Your task to perform on an android device: install app "Etsy: Buy & Sell Unique Items" Image 0: 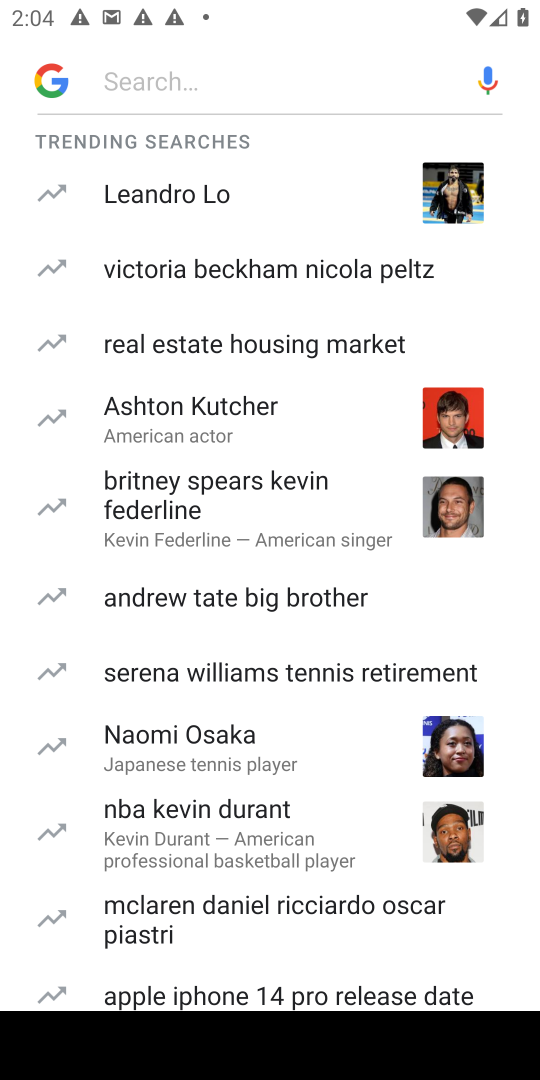
Step 0: press home button
Your task to perform on an android device: install app "Etsy: Buy & Sell Unique Items" Image 1: 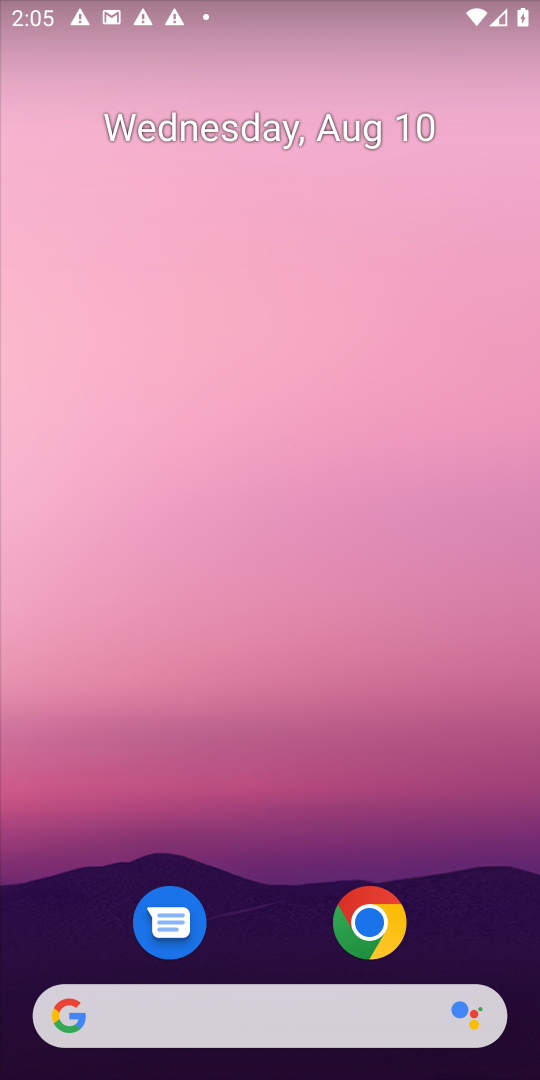
Step 1: drag from (270, 917) to (253, 495)
Your task to perform on an android device: install app "Etsy: Buy & Sell Unique Items" Image 2: 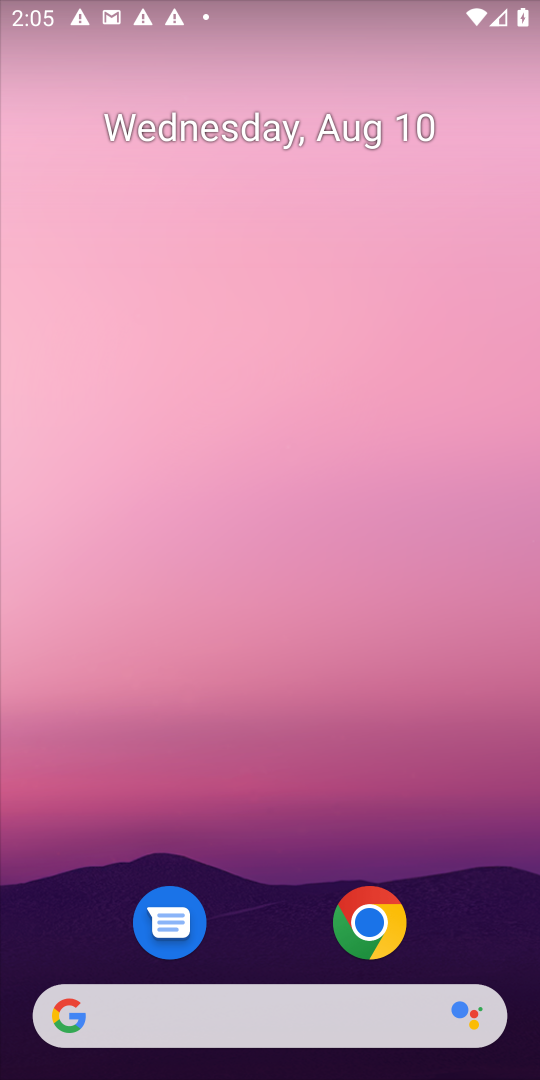
Step 2: drag from (250, 653) to (396, 159)
Your task to perform on an android device: install app "Etsy: Buy & Sell Unique Items" Image 3: 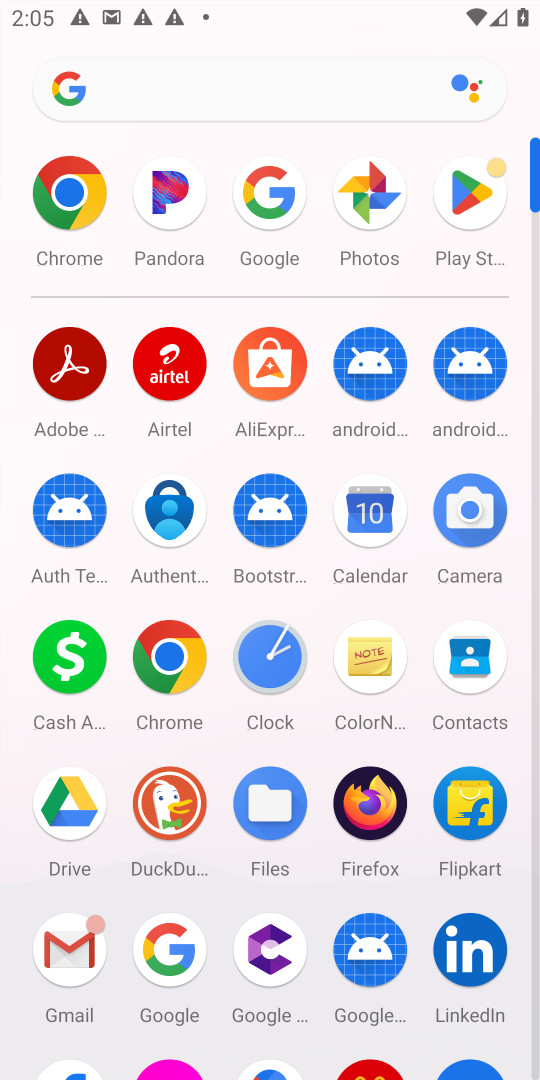
Step 3: click (454, 210)
Your task to perform on an android device: install app "Etsy: Buy & Sell Unique Items" Image 4: 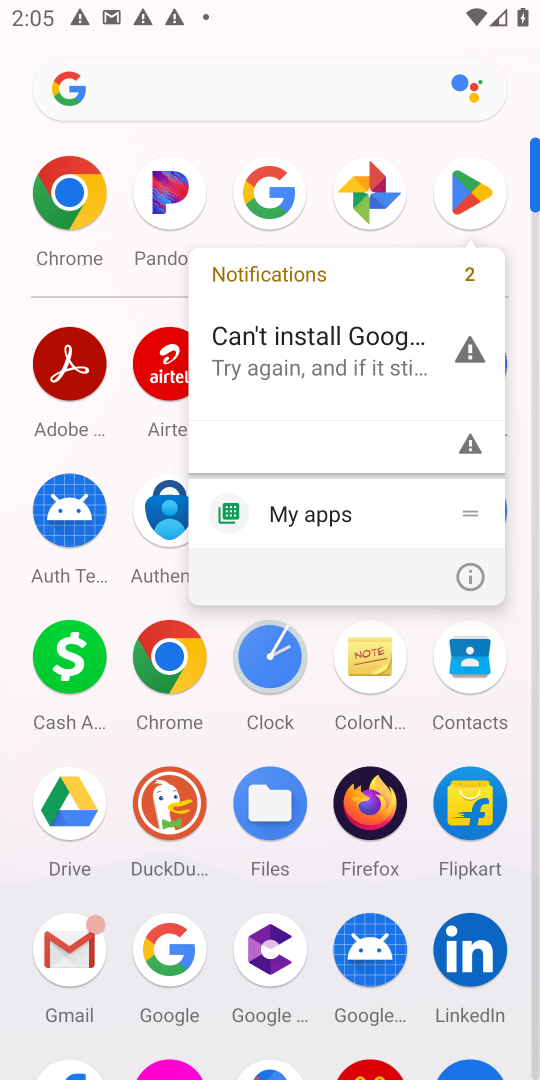
Step 4: click (469, 187)
Your task to perform on an android device: install app "Etsy: Buy & Sell Unique Items" Image 5: 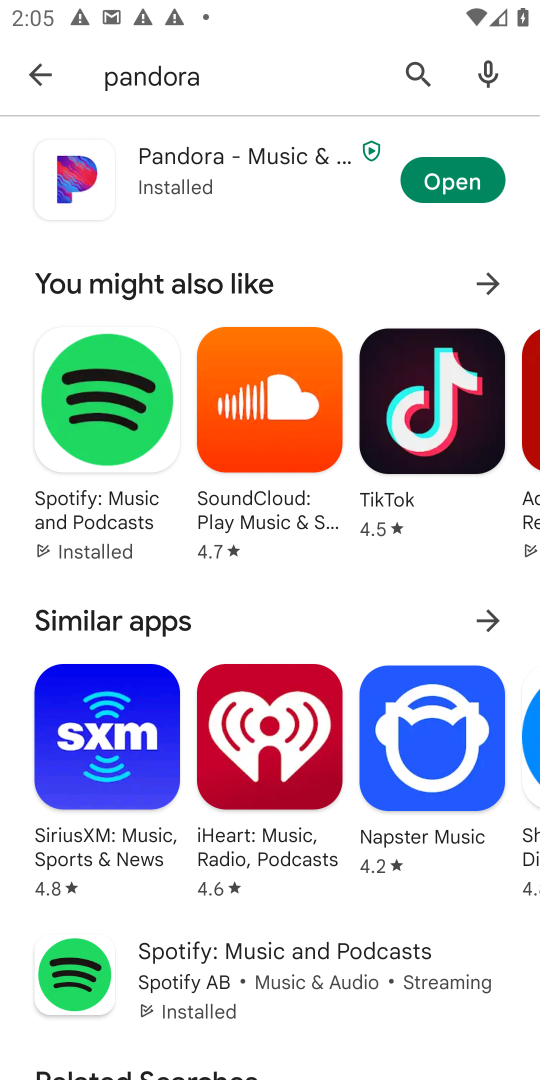
Step 5: click (49, 75)
Your task to perform on an android device: install app "Etsy: Buy & Sell Unique Items" Image 6: 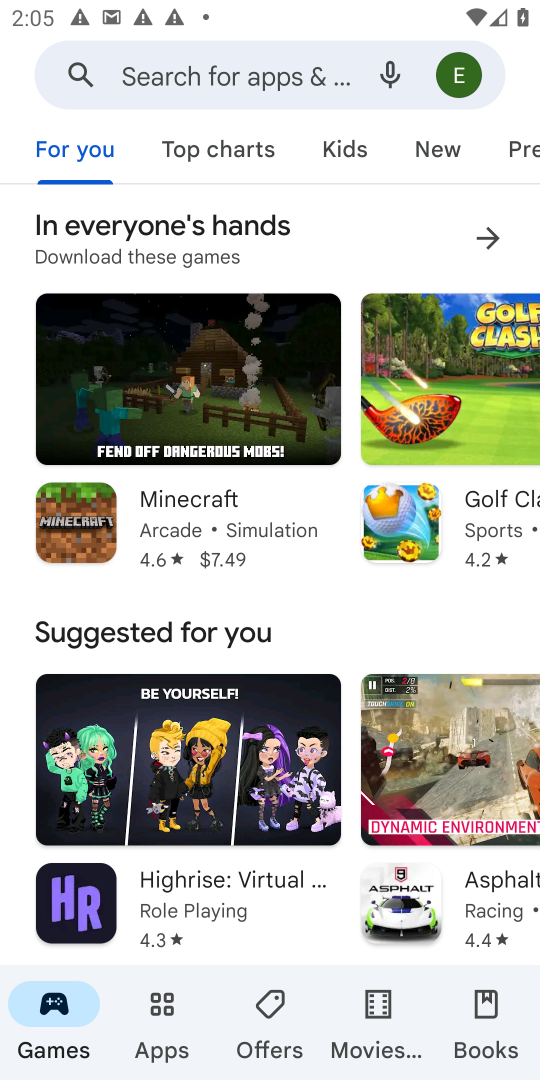
Step 6: click (202, 64)
Your task to perform on an android device: install app "Etsy: Buy & Sell Unique Items" Image 7: 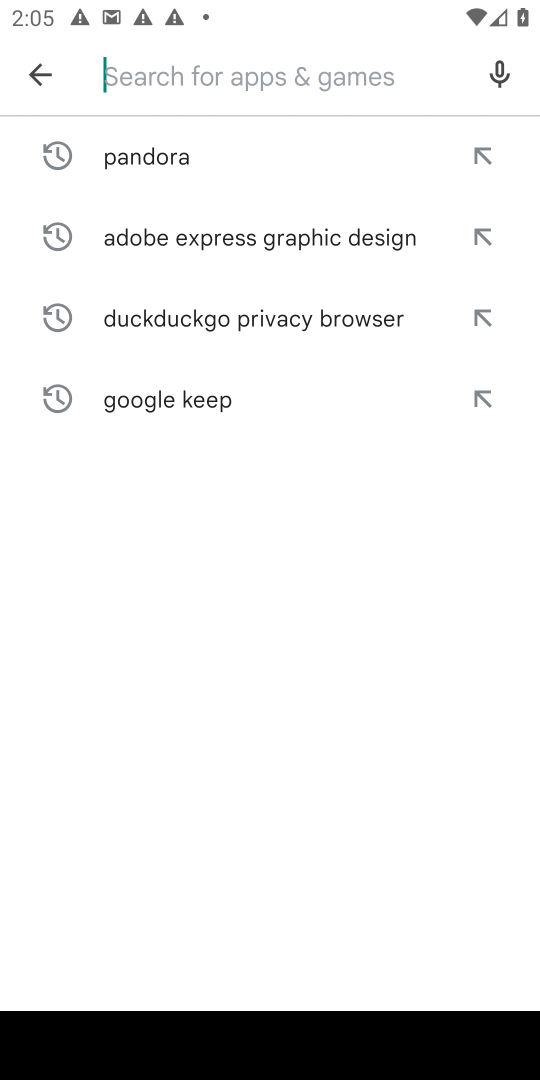
Step 7: type "Etsy: Buy & Sell Unique Items"
Your task to perform on an android device: install app "Etsy: Buy & Sell Unique Items" Image 8: 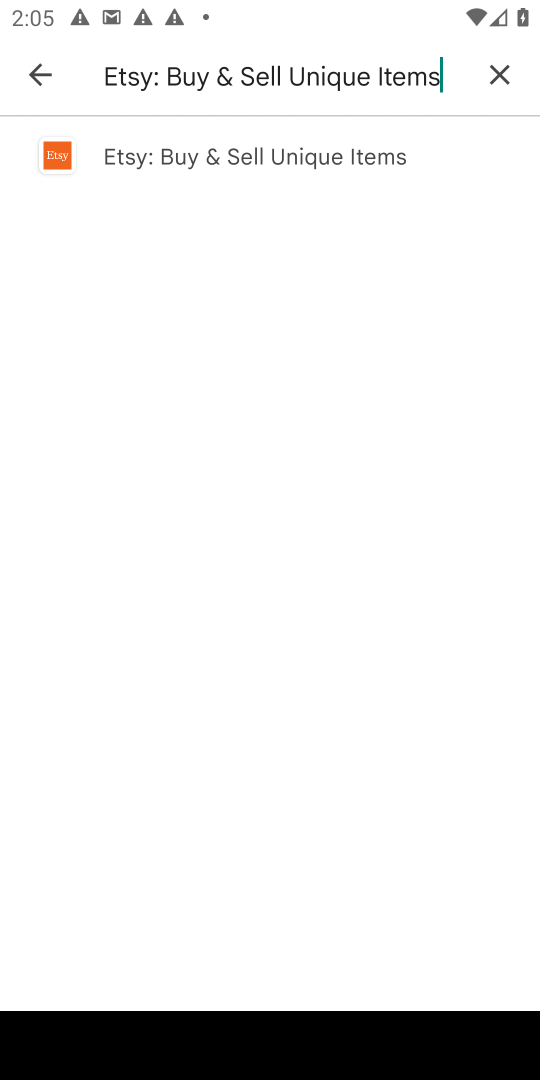
Step 8: click (273, 157)
Your task to perform on an android device: install app "Etsy: Buy & Sell Unique Items" Image 9: 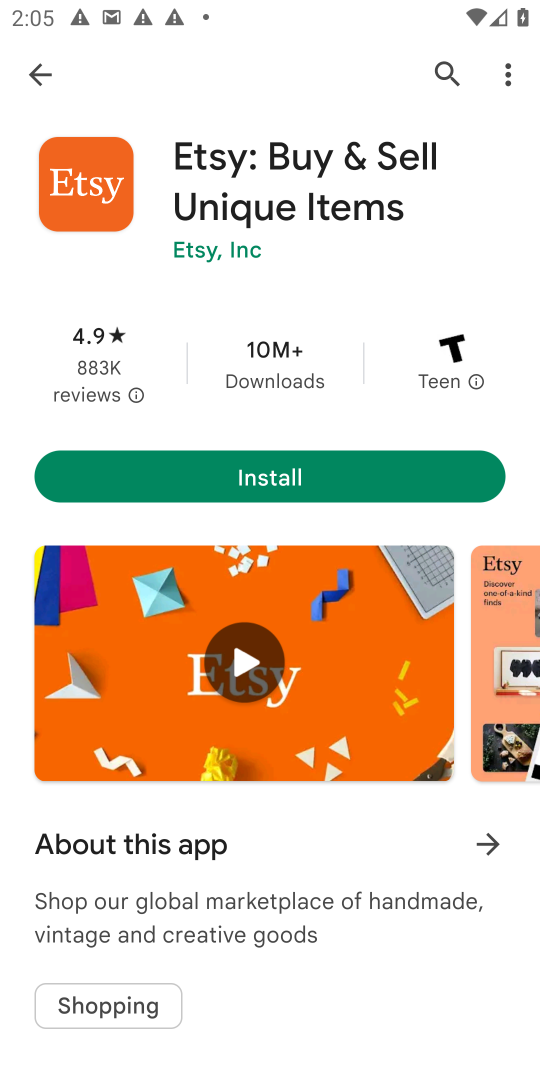
Step 9: click (238, 468)
Your task to perform on an android device: install app "Etsy: Buy & Sell Unique Items" Image 10: 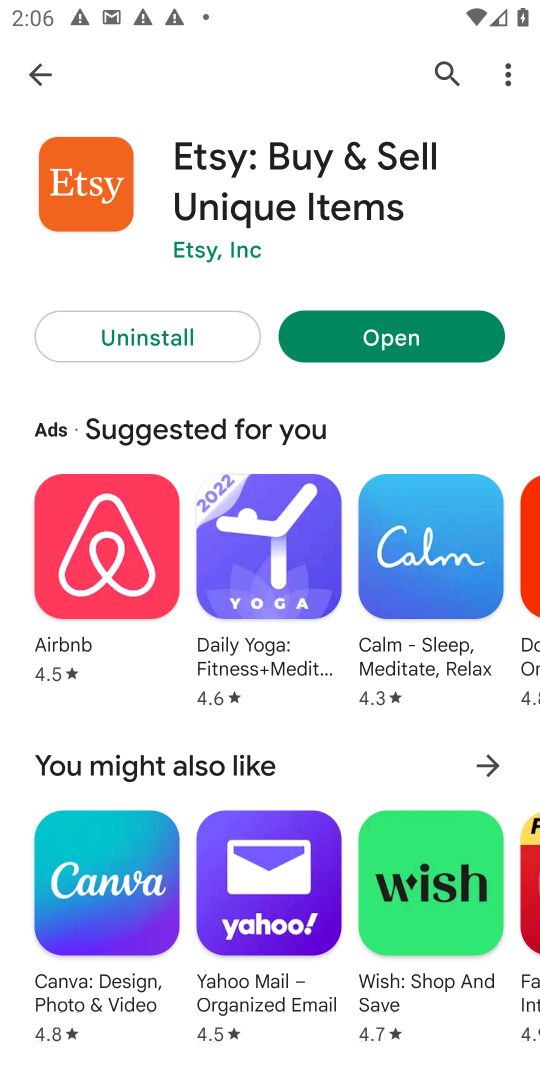
Step 10: click (362, 351)
Your task to perform on an android device: install app "Etsy: Buy & Sell Unique Items" Image 11: 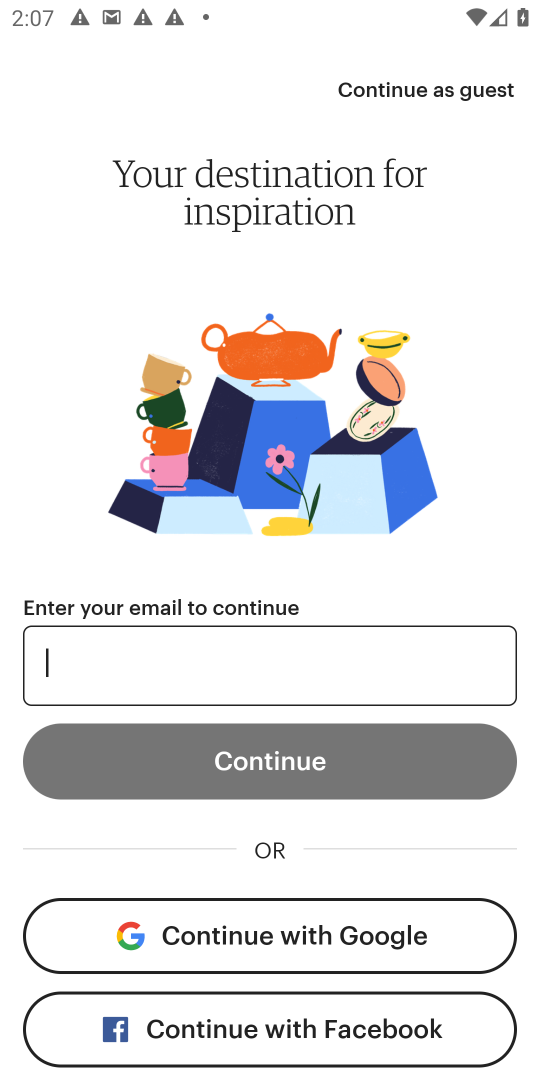
Step 11: task complete